Your task to perform on an android device: change the clock display to digital Image 0: 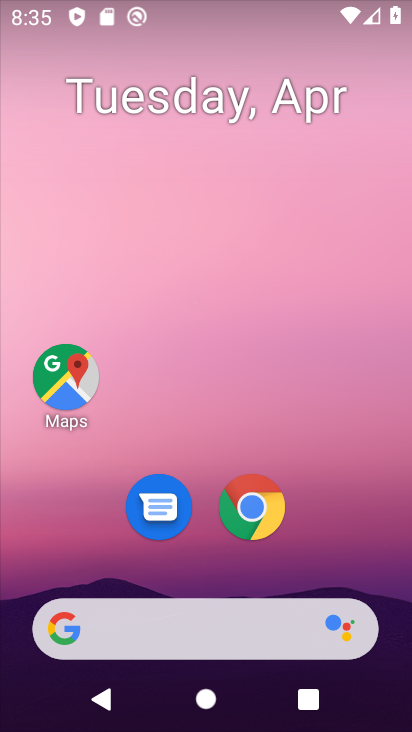
Step 0: drag from (214, 570) to (208, 220)
Your task to perform on an android device: change the clock display to digital Image 1: 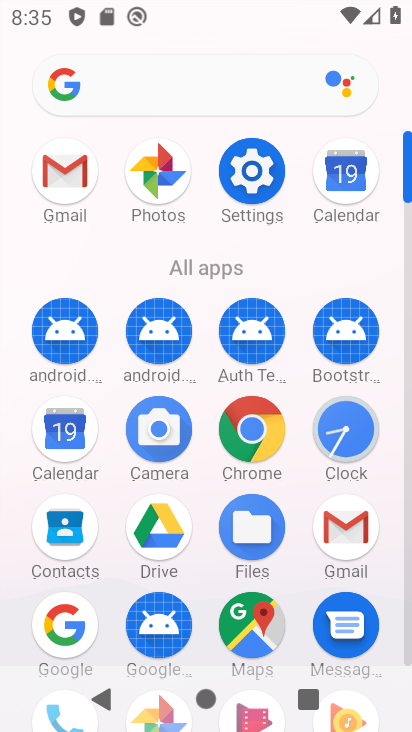
Step 1: click (350, 443)
Your task to perform on an android device: change the clock display to digital Image 2: 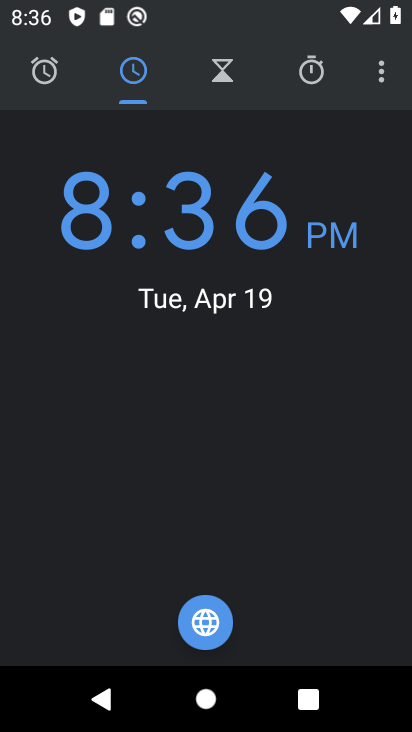
Step 2: click (392, 70)
Your task to perform on an android device: change the clock display to digital Image 3: 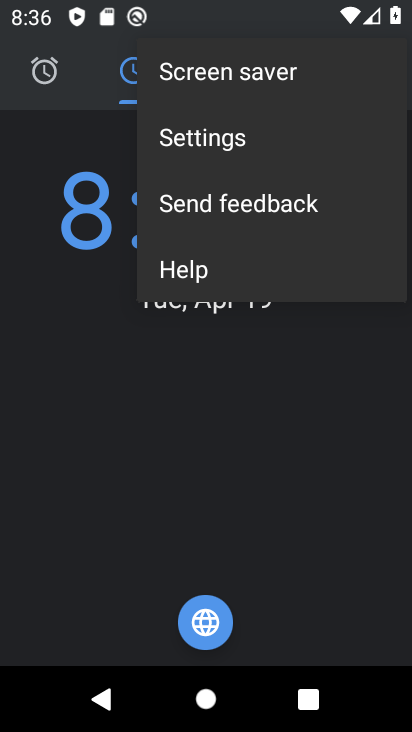
Step 3: click (229, 137)
Your task to perform on an android device: change the clock display to digital Image 4: 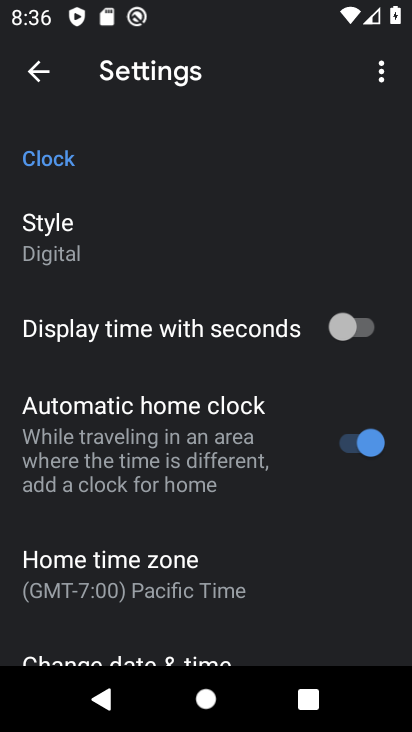
Step 4: task complete